Your task to perform on an android device: Open the map Image 0: 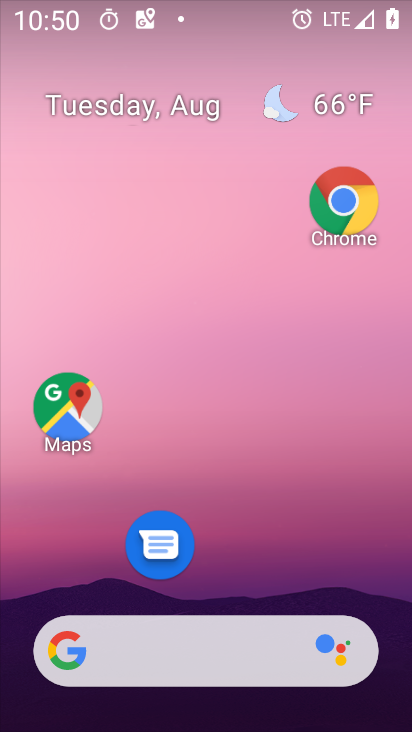
Step 0: drag from (275, 634) to (277, 110)
Your task to perform on an android device: Open the map Image 1: 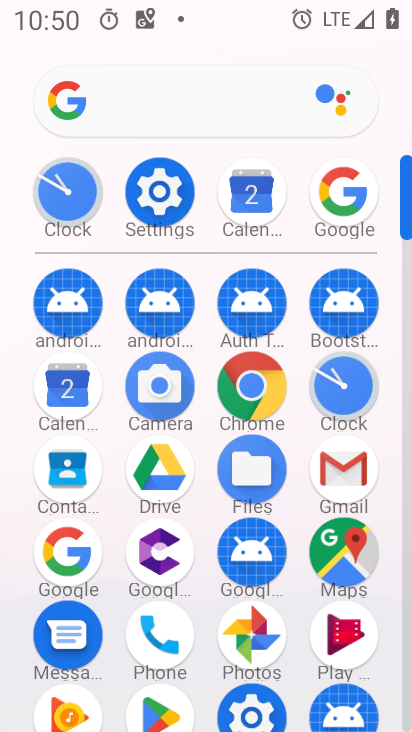
Step 1: click (349, 562)
Your task to perform on an android device: Open the map Image 2: 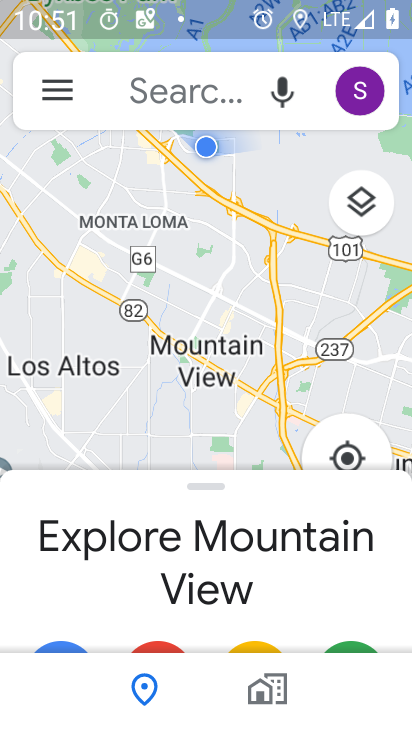
Step 2: task complete